Your task to perform on an android device: toggle pop-ups in chrome Image 0: 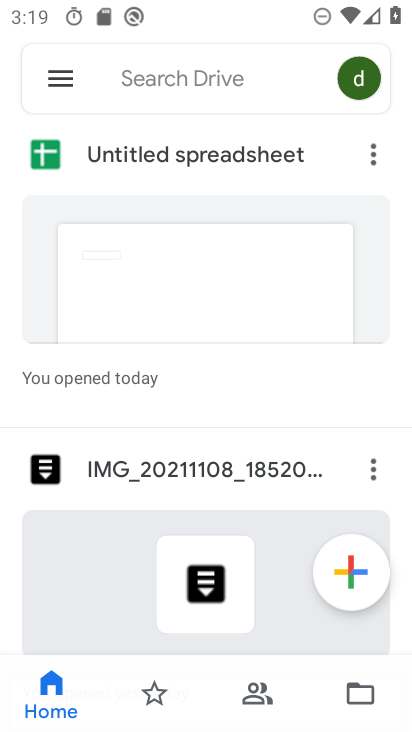
Step 0: press home button
Your task to perform on an android device: toggle pop-ups in chrome Image 1: 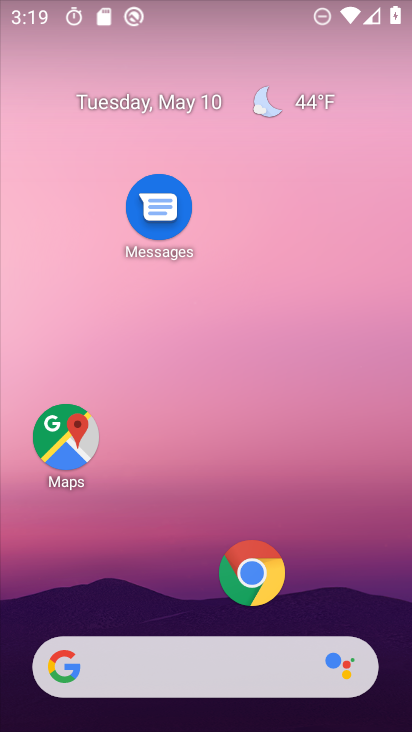
Step 1: click (247, 560)
Your task to perform on an android device: toggle pop-ups in chrome Image 2: 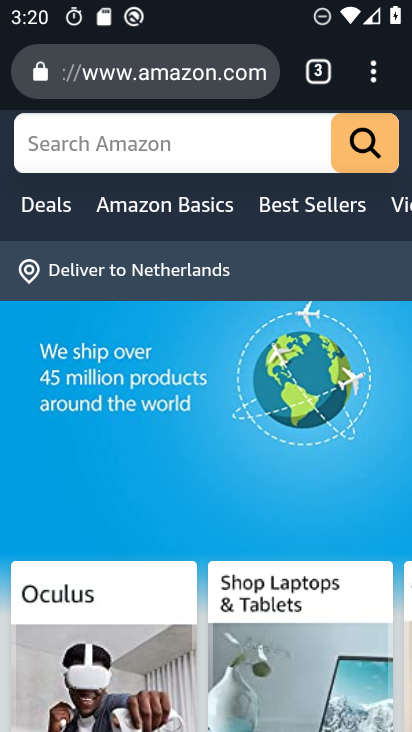
Step 2: drag from (367, 71) to (153, 559)
Your task to perform on an android device: toggle pop-ups in chrome Image 3: 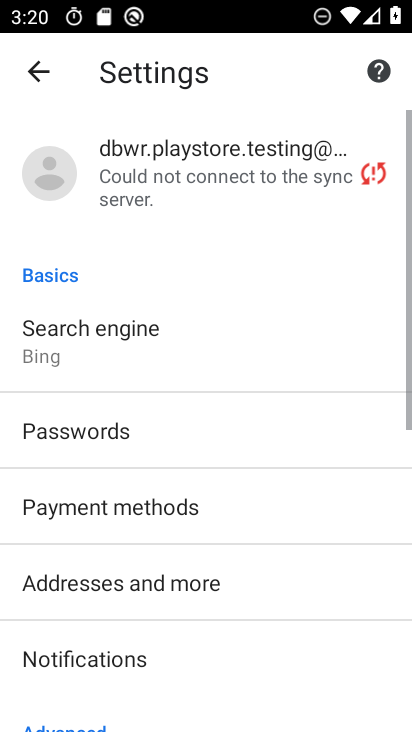
Step 3: drag from (172, 685) to (283, 308)
Your task to perform on an android device: toggle pop-ups in chrome Image 4: 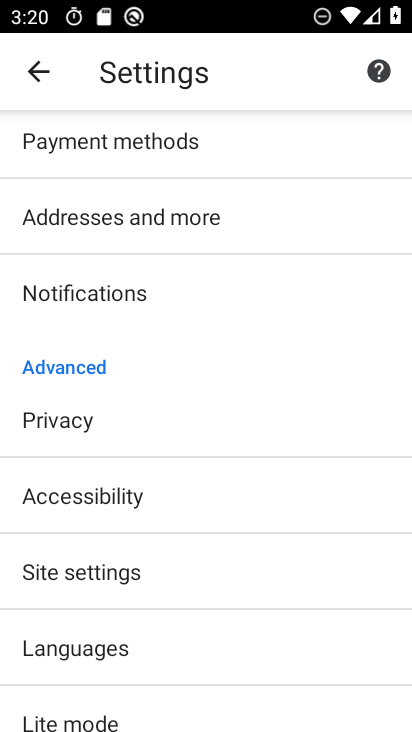
Step 4: drag from (155, 640) to (221, 475)
Your task to perform on an android device: toggle pop-ups in chrome Image 5: 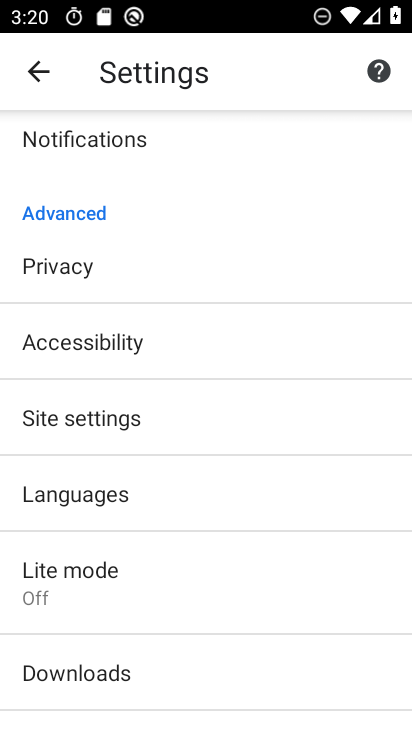
Step 5: click (139, 434)
Your task to perform on an android device: toggle pop-ups in chrome Image 6: 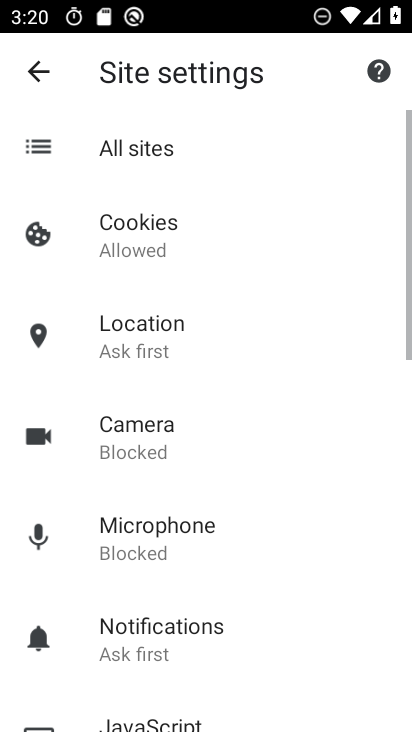
Step 6: drag from (217, 608) to (303, 361)
Your task to perform on an android device: toggle pop-ups in chrome Image 7: 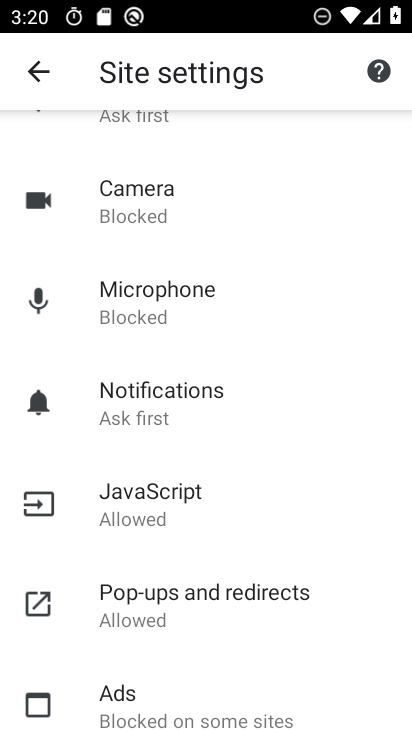
Step 7: click (183, 595)
Your task to perform on an android device: toggle pop-ups in chrome Image 8: 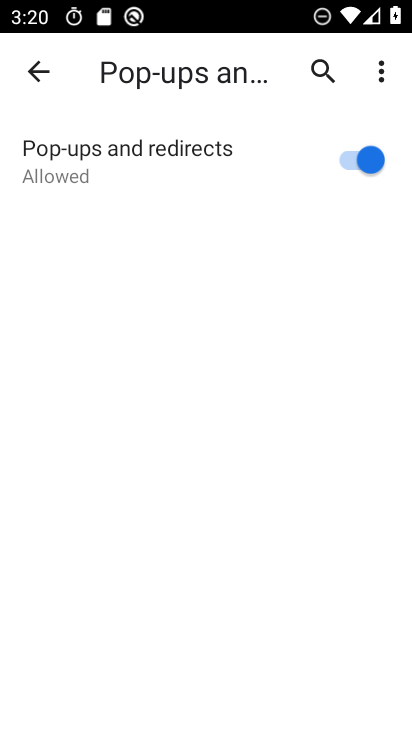
Step 8: task complete